Your task to perform on an android device: Open notification settings Image 0: 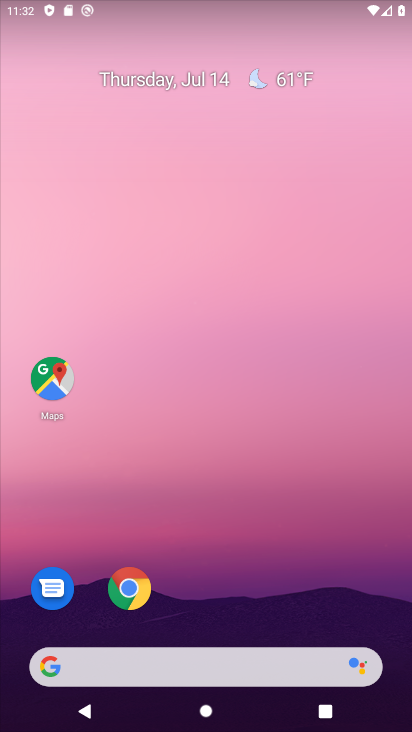
Step 0: drag from (158, 643) to (275, 88)
Your task to perform on an android device: Open notification settings Image 1: 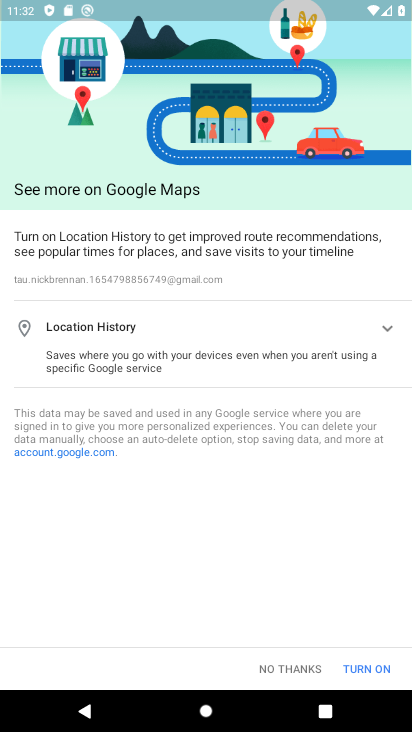
Step 1: press home button
Your task to perform on an android device: Open notification settings Image 2: 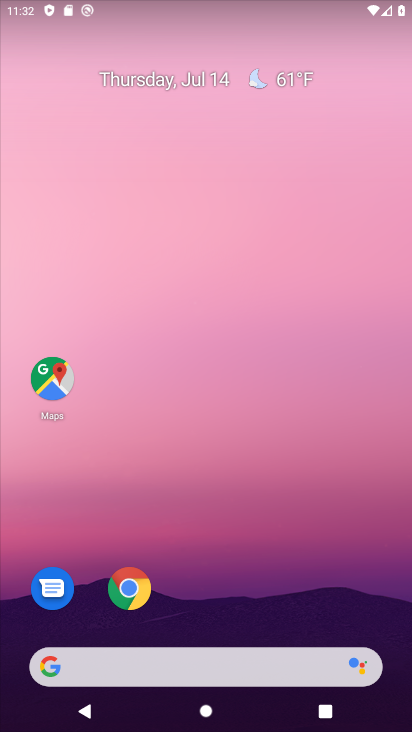
Step 2: drag from (181, 627) to (304, 72)
Your task to perform on an android device: Open notification settings Image 3: 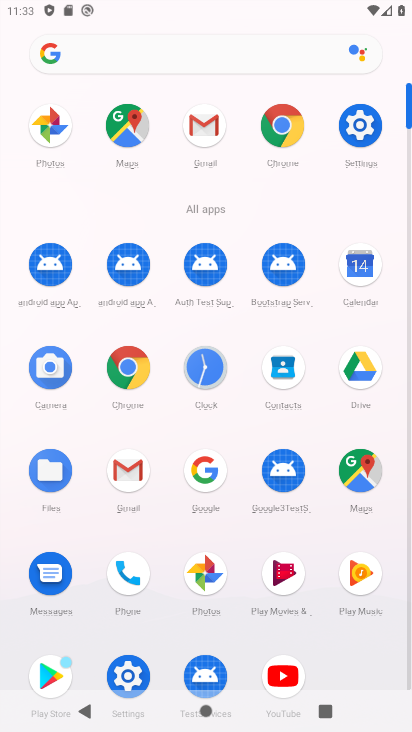
Step 3: click (133, 663)
Your task to perform on an android device: Open notification settings Image 4: 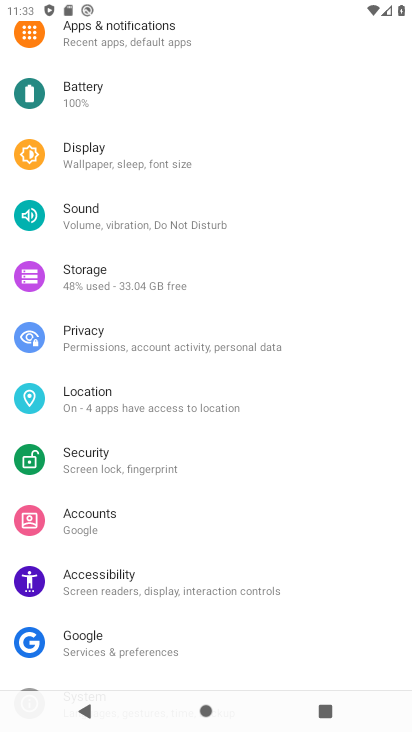
Step 4: click (192, 52)
Your task to perform on an android device: Open notification settings Image 5: 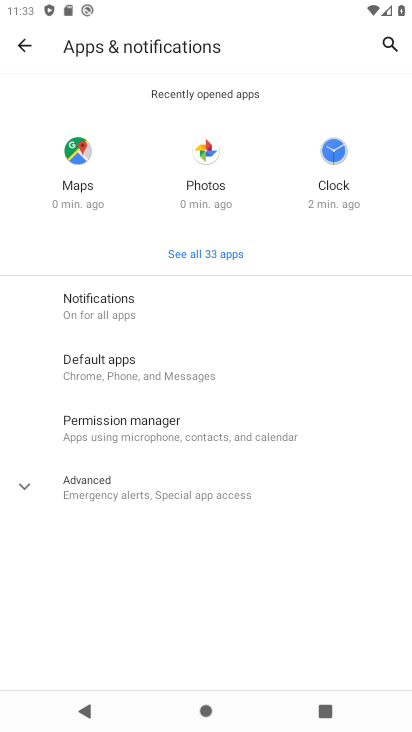
Step 5: click (128, 321)
Your task to perform on an android device: Open notification settings Image 6: 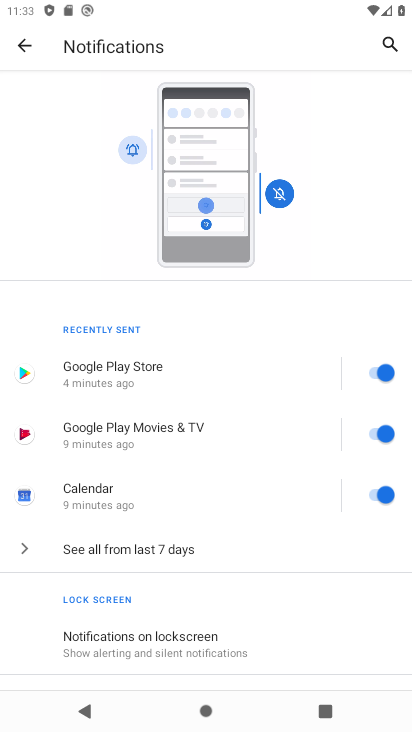
Step 6: task complete